Your task to perform on an android device: change the clock style Image 0: 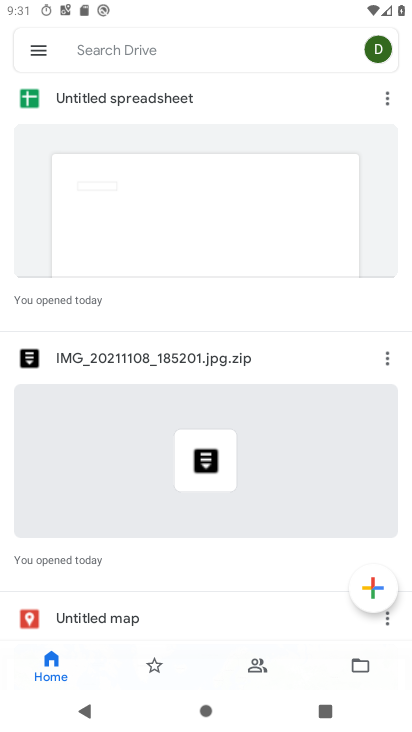
Step 0: press home button
Your task to perform on an android device: change the clock style Image 1: 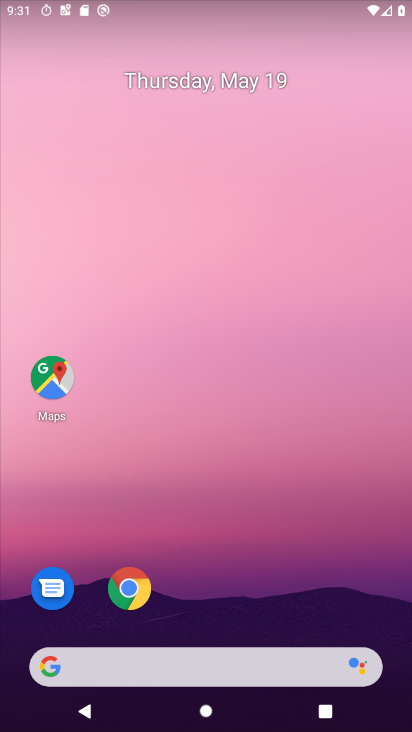
Step 1: drag from (141, 661) to (278, 248)
Your task to perform on an android device: change the clock style Image 2: 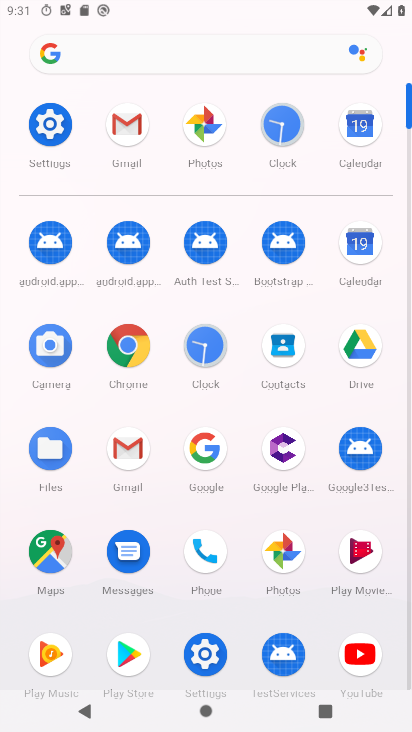
Step 2: click (278, 131)
Your task to perform on an android device: change the clock style Image 3: 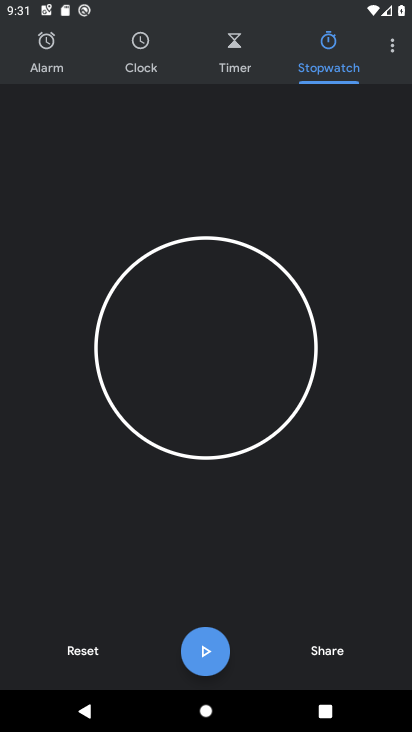
Step 3: click (390, 54)
Your task to perform on an android device: change the clock style Image 4: 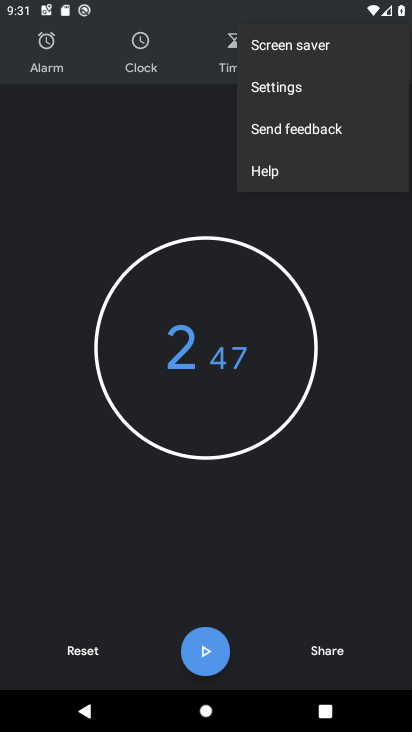
Step 4: click (300, 94)
Your task to perform on an android device: change the clock style Image 5: 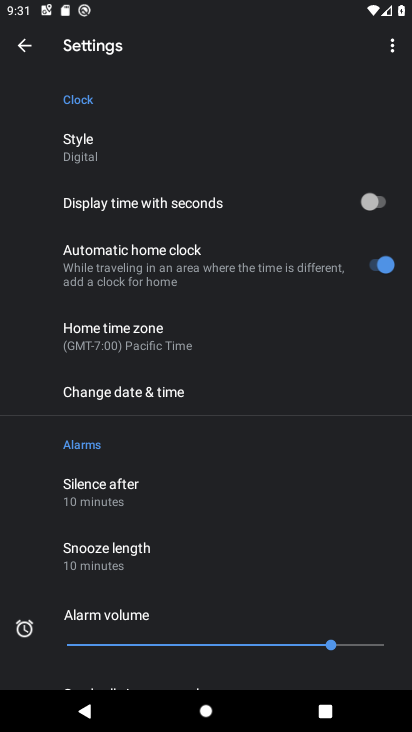
Step 5: click (99, 161)
Your task to perform on an android device: change the clock style Image 6: 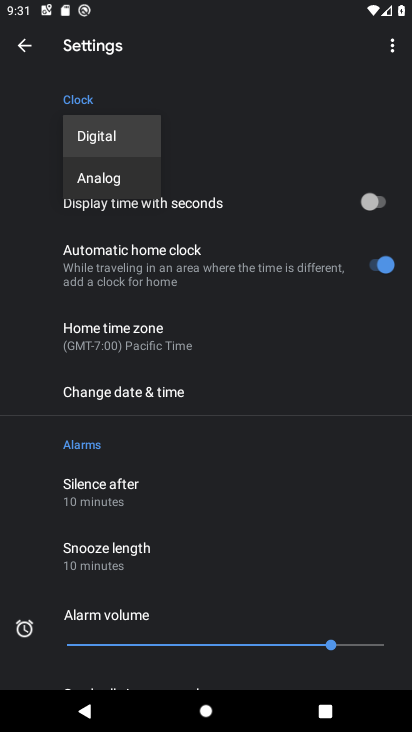
Step 6: click (110, 182)
Your task to perform on an android device: change the clock style Image 7: 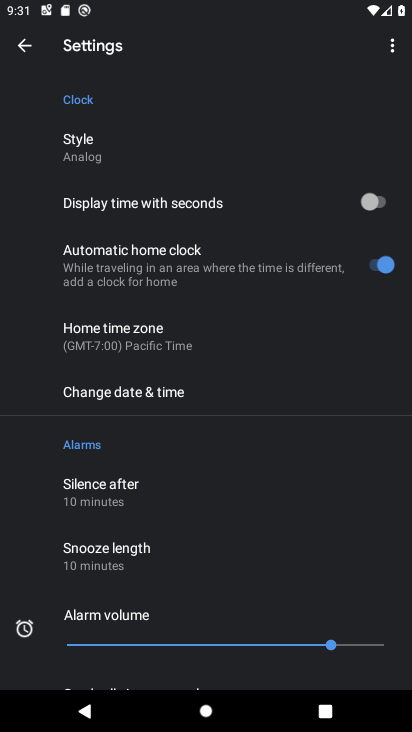
Step 7: task complete